Your task to perform on an android device: turn on data saver in the chrome app Image 0: 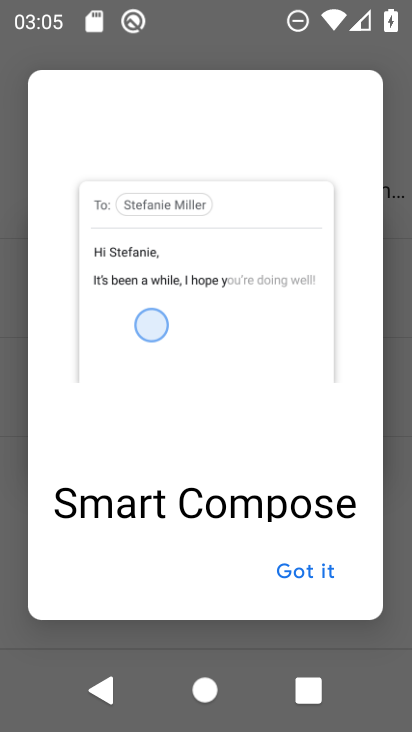
Step 0: press home button
Your task to perform on an android device: turn on data saver in the chrome app Image 1: 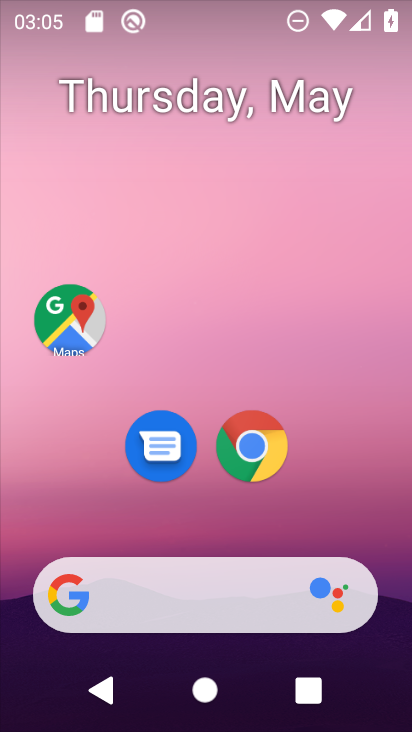
Step 1: click (259, 457)
Your task to perform on an android device: turn on data saver in the chrome app Image 2: 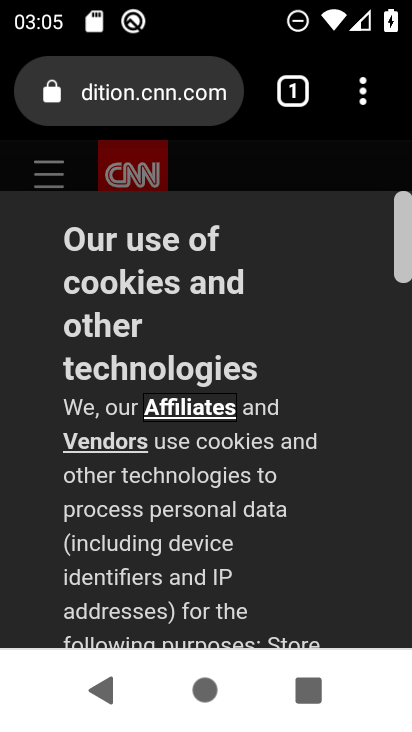
Step 2: click (361, 102)
Your task to perform on an android device: turn on data saver in the chrome app Image 3: 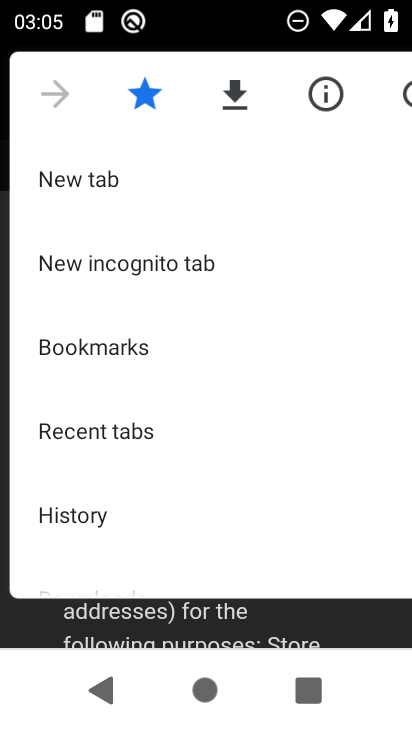
Step 3: drag from (253, 495) to (249, 97)
Your task to perform on an android device: turn on data saver in the chrome app Image 4: 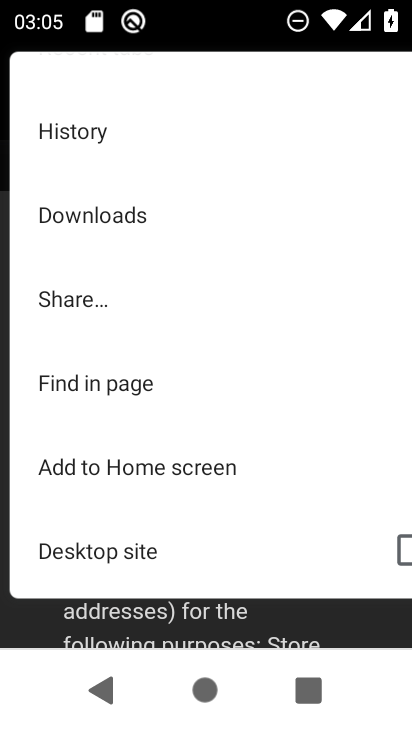
Step 4: drag from (189, 468) to (219, 92)
Your task to perform on an android device: turn on data saver in the chrome app Image 5: 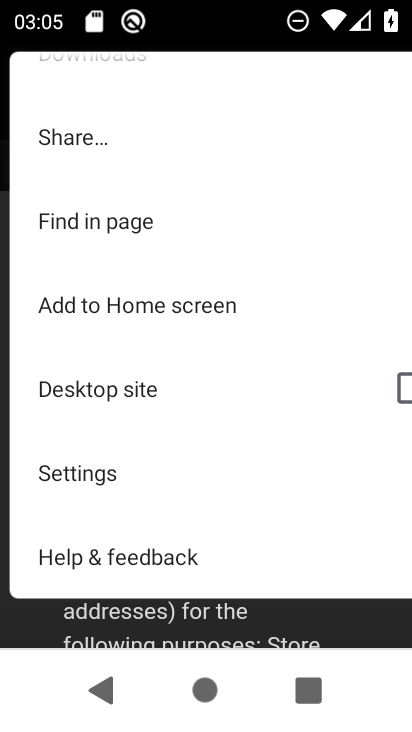
Step 5: click (91, 478)
Your task to perform on an android device: turn on data saver in the chrome app Image 6: 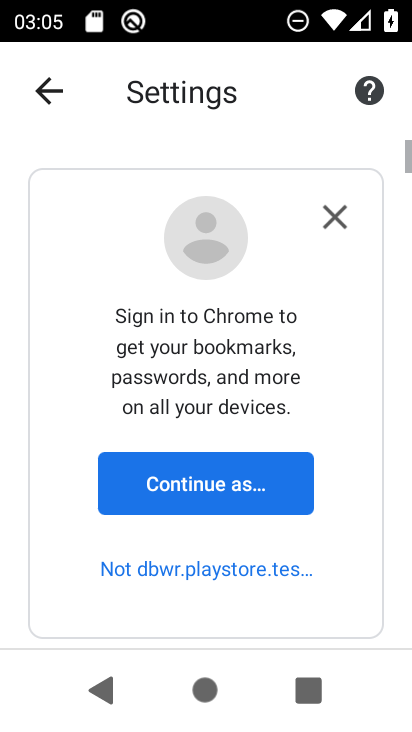
Step 6: drag from (249, 575) to (238, 130)
Your task to perform on an android device: turn on data saver in the chrome app Image 7: 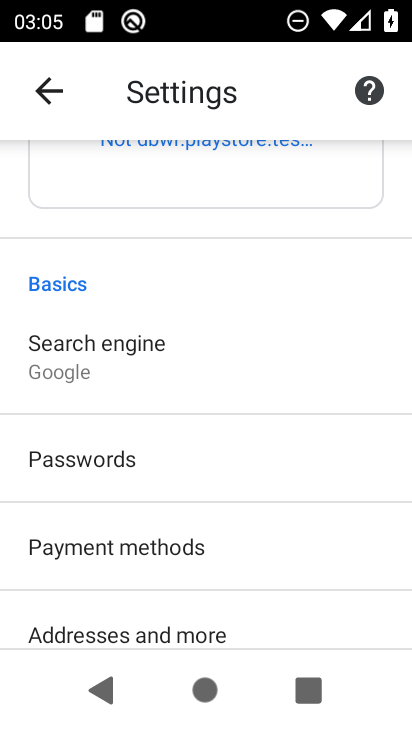
Step 7: drag from (227, 559) to (240, 147)
Your task to perform on an android device: turn on data saver in the chrome app Image 8: 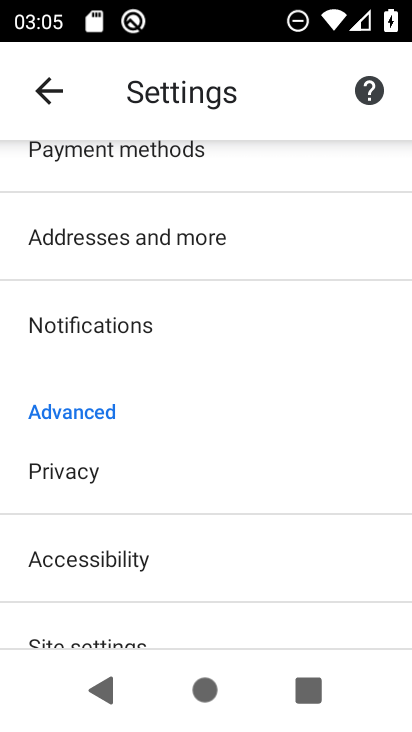
Step 8: drag from (207, 498) to (203, 172)
Your task to perform on an android device: turn on data saver in the chrome app Image 9: 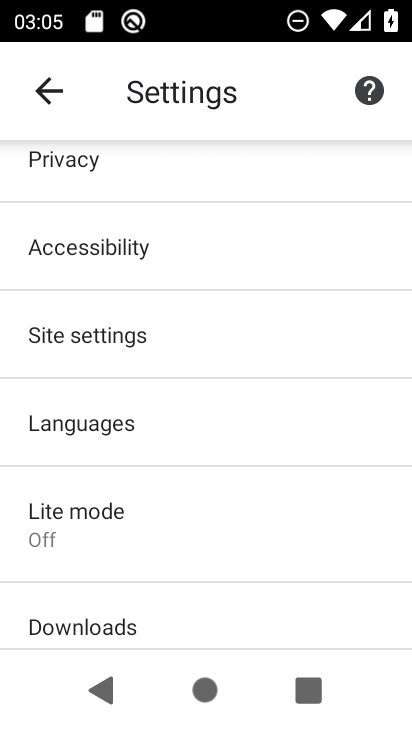
Step 9: click (92, 518)
Your task to perform on an android device: turn on data saver in the chrome app Image 10: 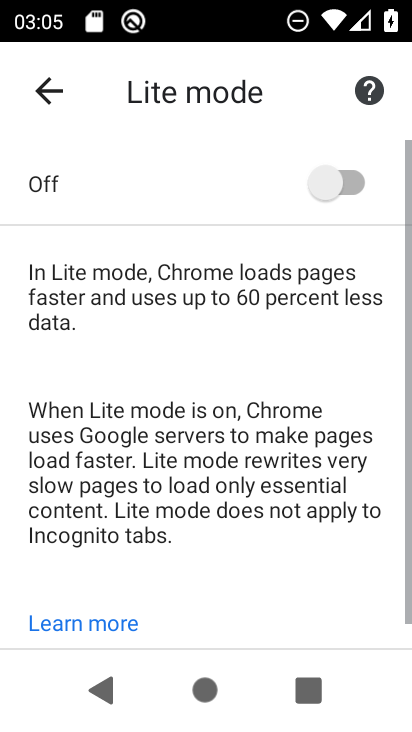
Step 10: click (331, 178)
Your task to perform on an android device: turn on data saver in the chrome app Image 11: 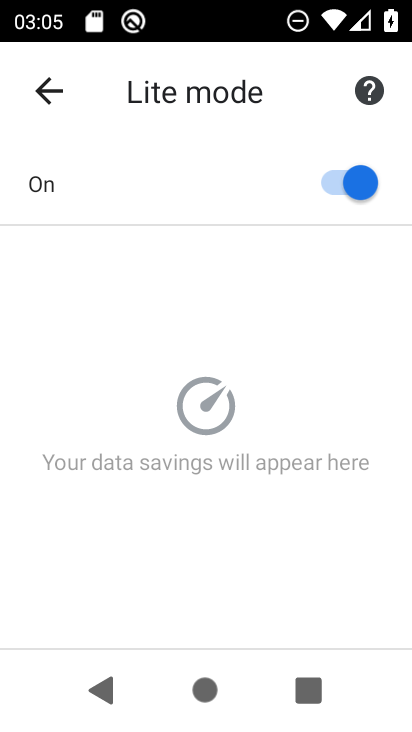
Step 11: task complete